Your task to perform on an android device: Add amazon basics triple a to the cart on costco.com, then select checkout. Image 0: 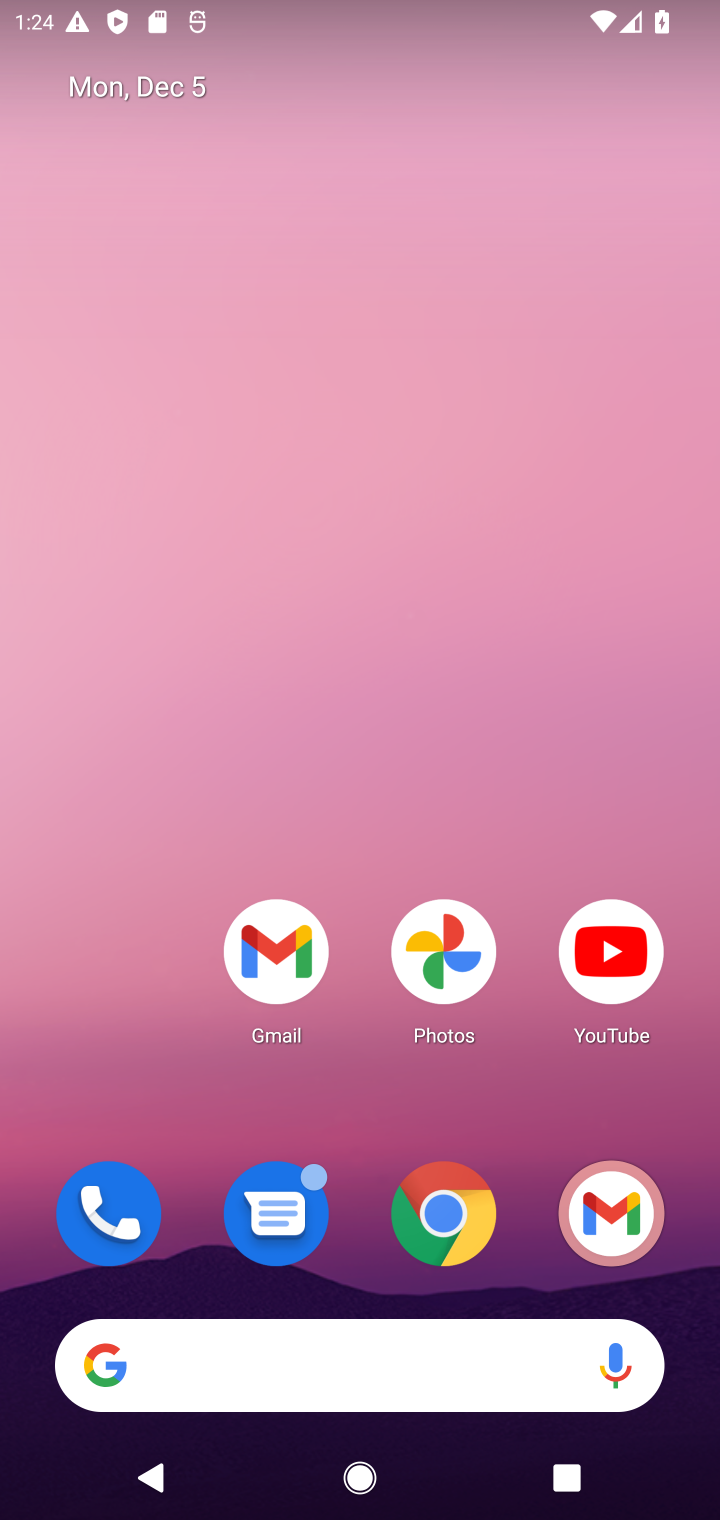
Step 0: click (447, 1216)
Your task to perform on an android device: Add amazon basics triple a to the cart on costco.com, then select checkout. Image 1: 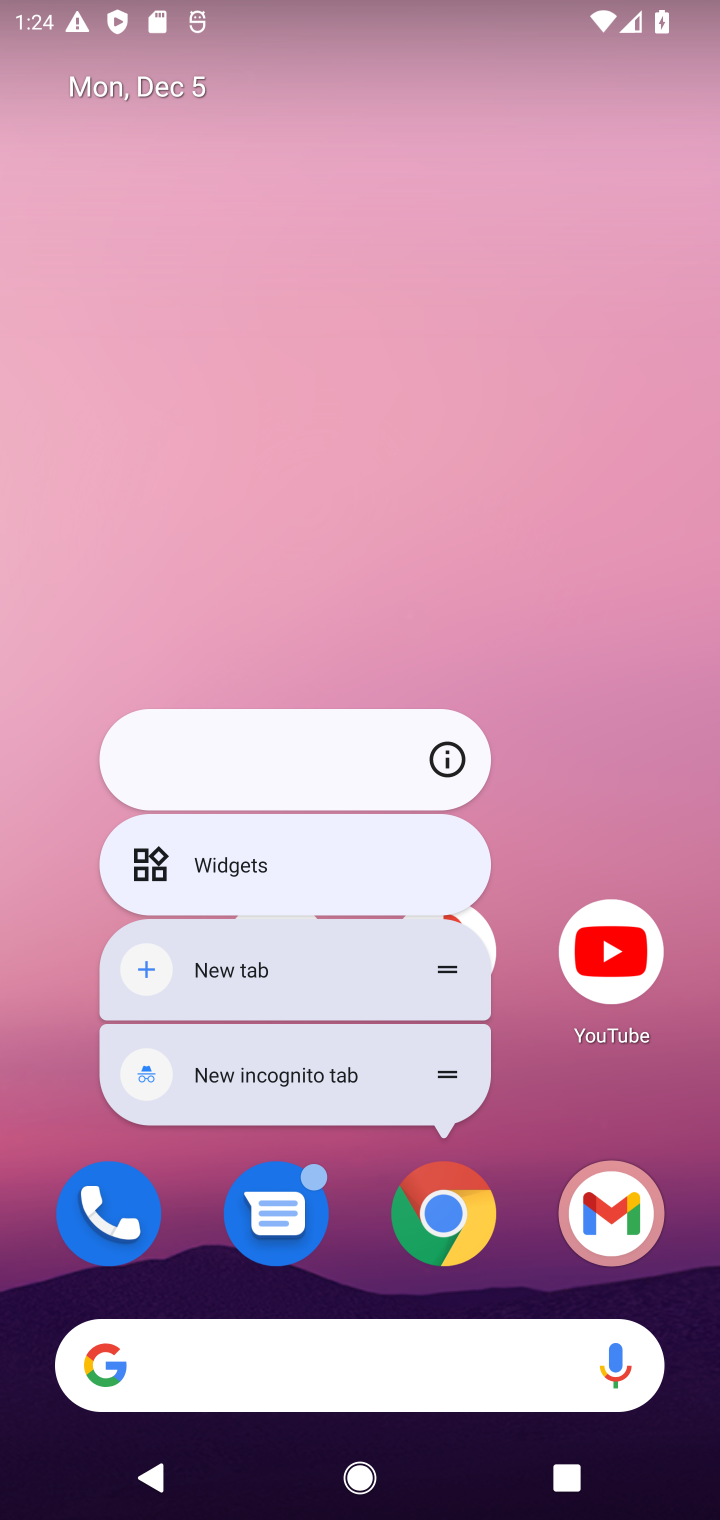
Step 1: click (449, 1216)
Your task to perform on an android device: Add amazon basics triple a to the cart on costco.com, then select checkout. Image 2: 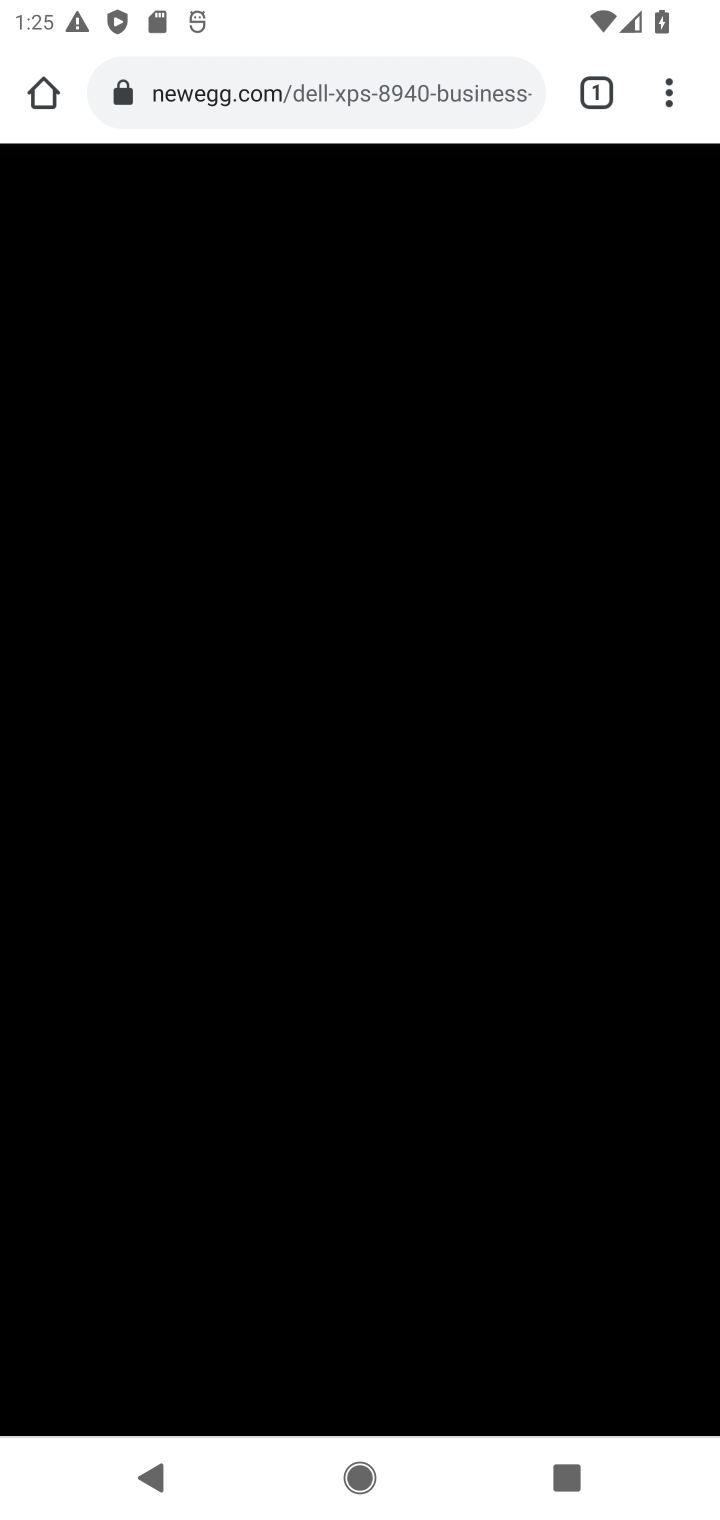
Step 2: click (291, 97)
Your task to perform on an android device: Add amazon basics triple a to the cart on costco.com, then select checkout. Image 3: 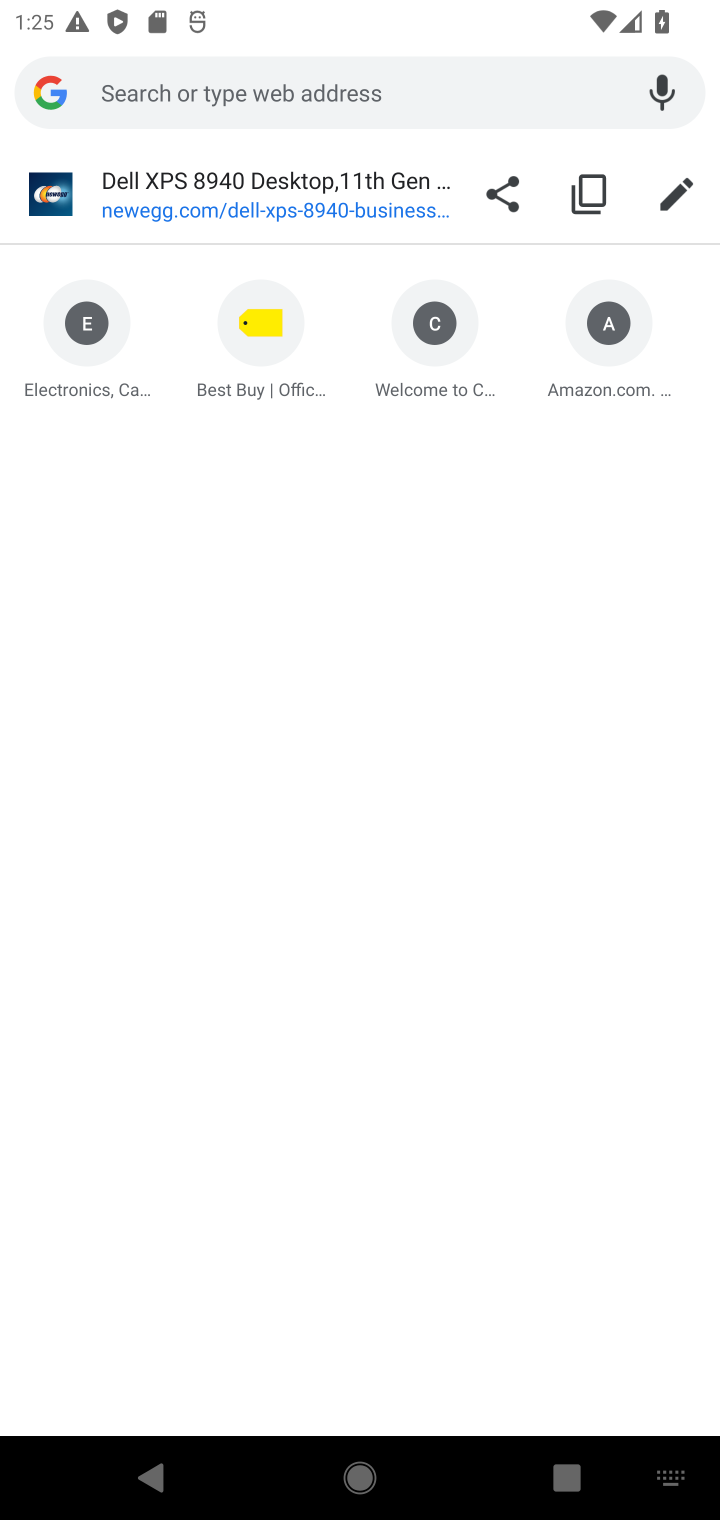
Step 3: type "costco.com"
Your task to perform on an android device: Add amazon basics triple a to the cart on costco.com, then select checkout. Image 4: 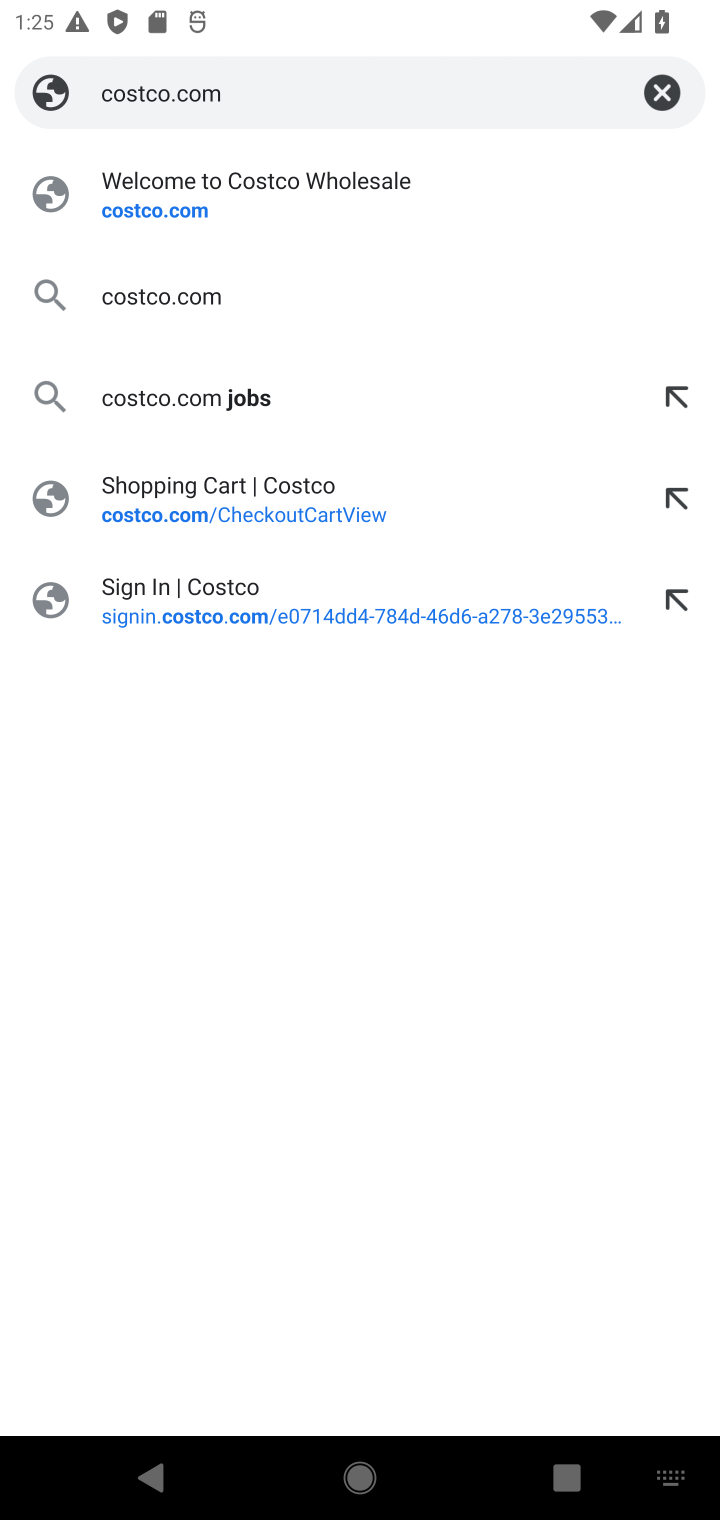
Step 4: click (163, 214)
Your task to perform on an android device: Add amazon basics triple a to the cart on costco.com, then select checkout. Image 5: 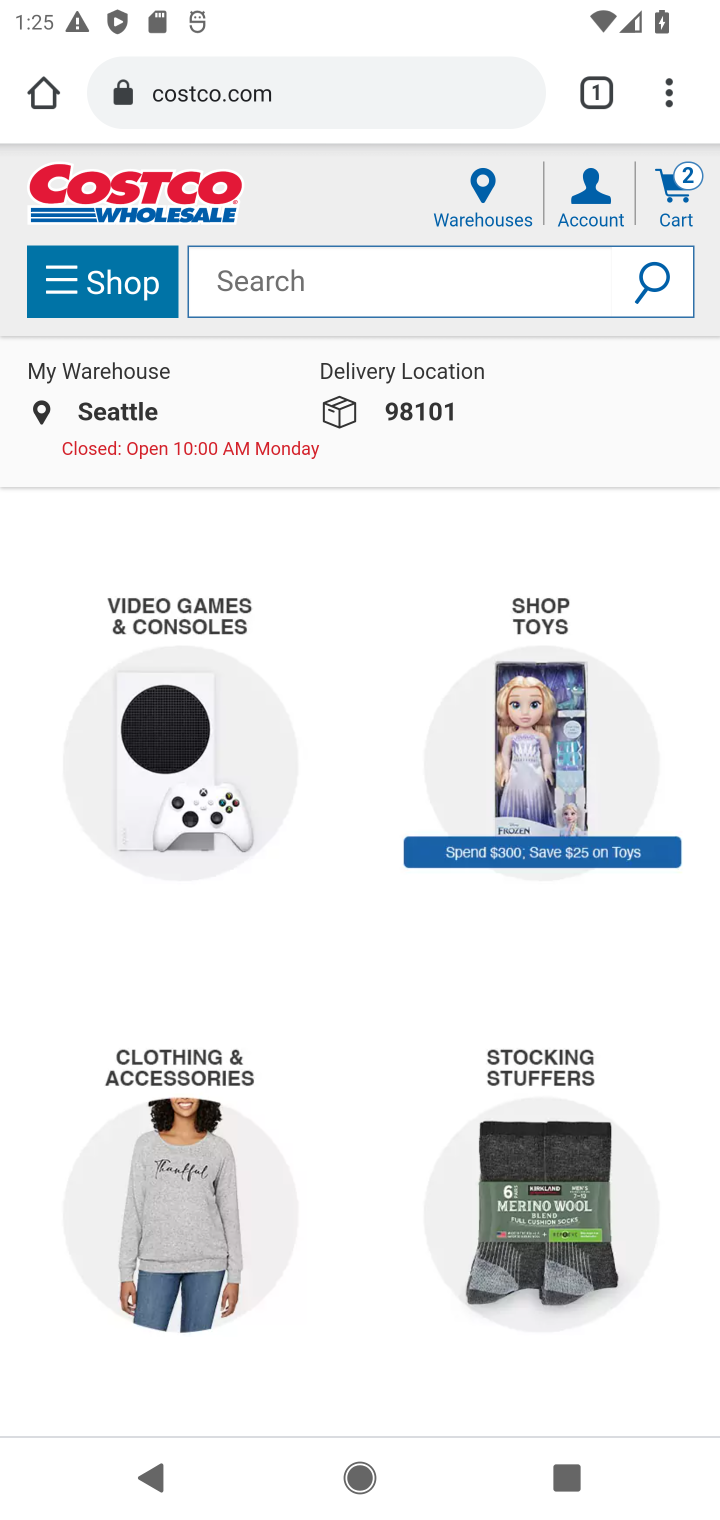
Step 5: click (326, 277)
Your task to perform on an android device: Add amazon basics triple a to the cart on costco.com, then select checkout. Image 6: 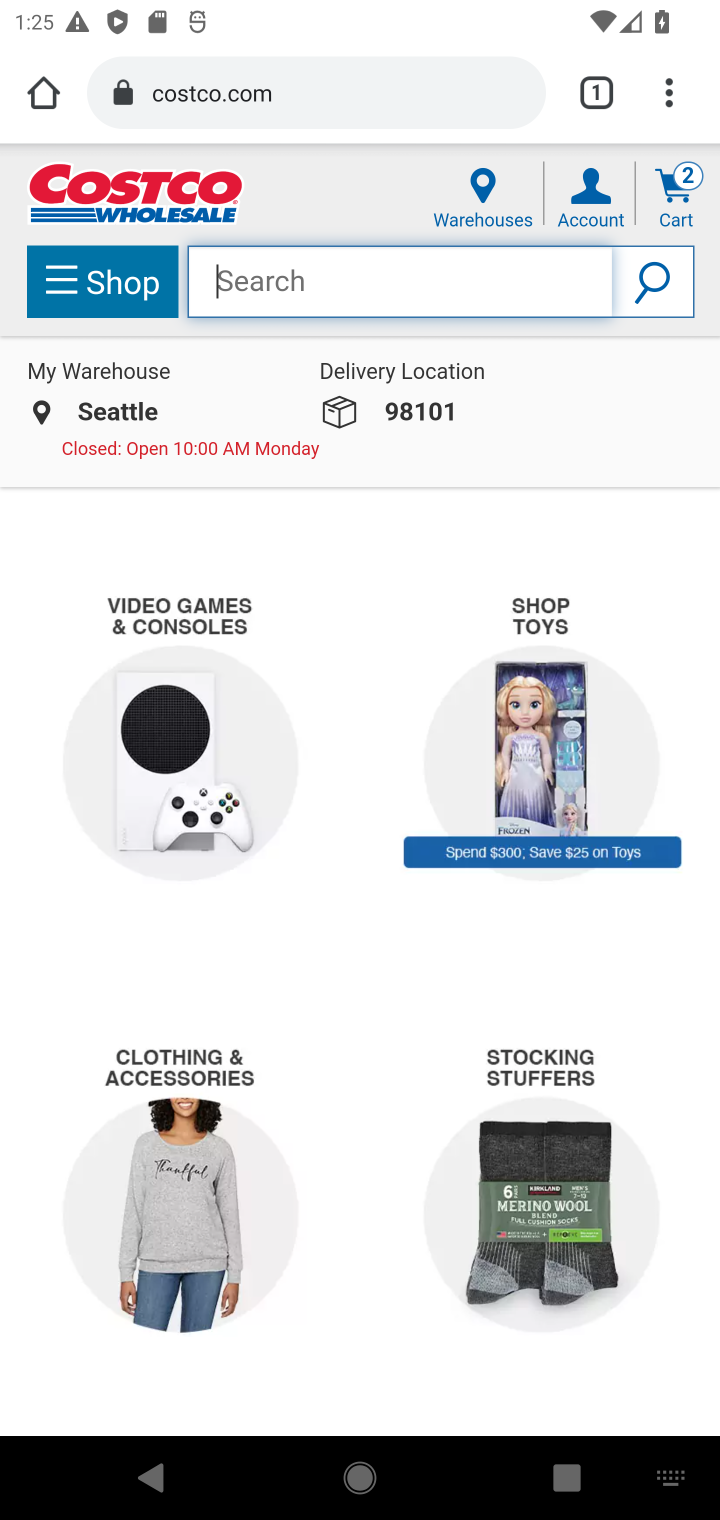
Step 6: type "amazon basics triple a"
Your task to perform on an android device: Add amazon basics triple a to the cart on costco.com, then select checkout. Image 7: 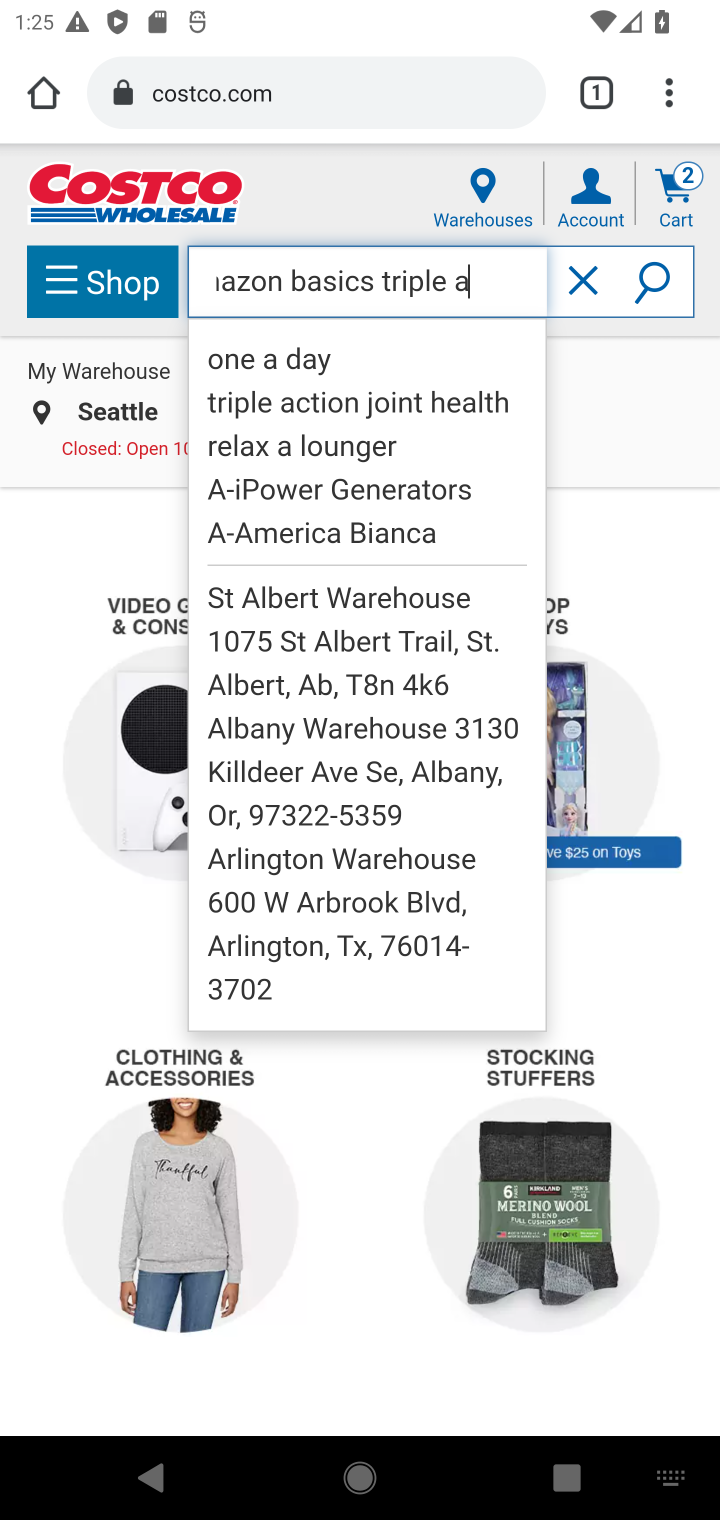
Step 7: click (654, 275)
Your task to perform on an android device: Add amazon basics triple a to the cart on costco.com, then select checkout. Image 8: 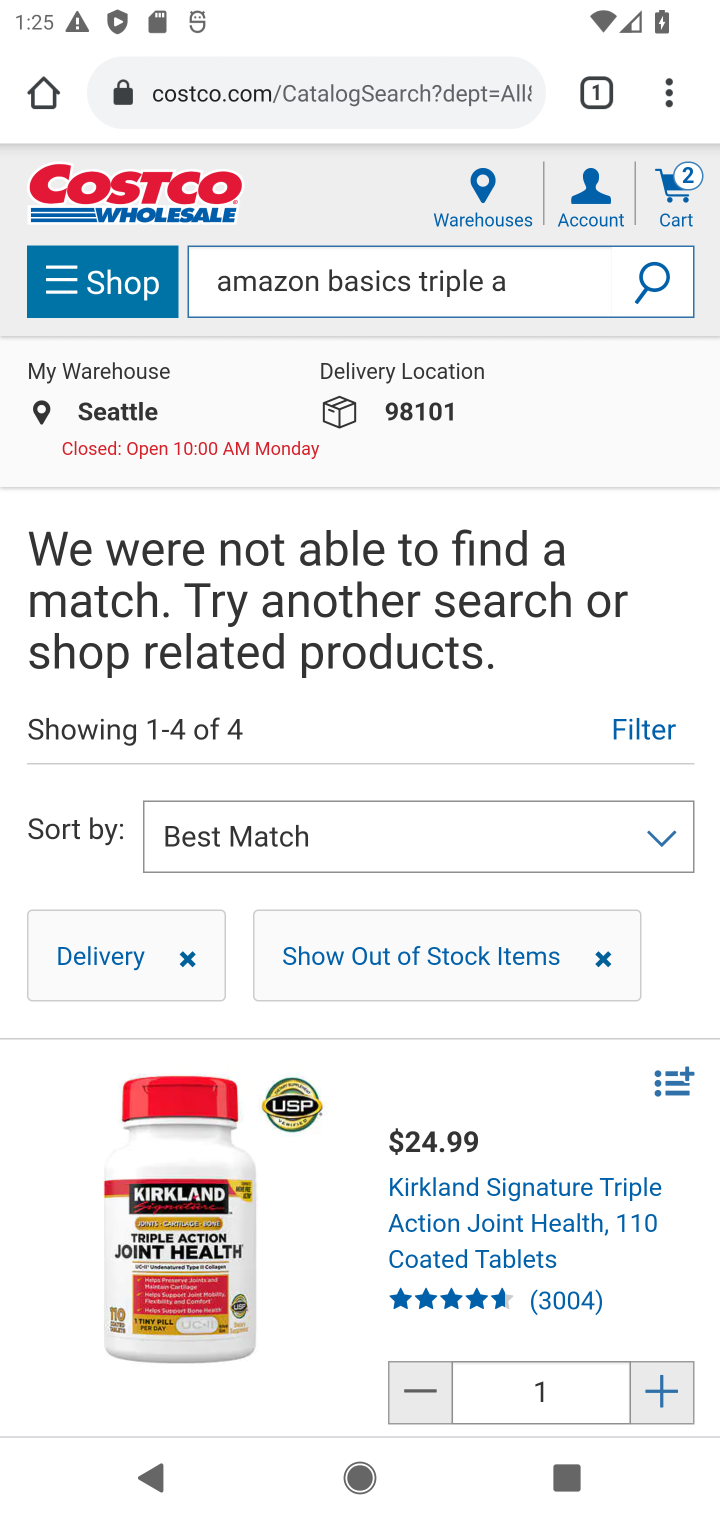
Step 8: task complete